Your task to perform on an android device: Open Wikipedia Image 0: 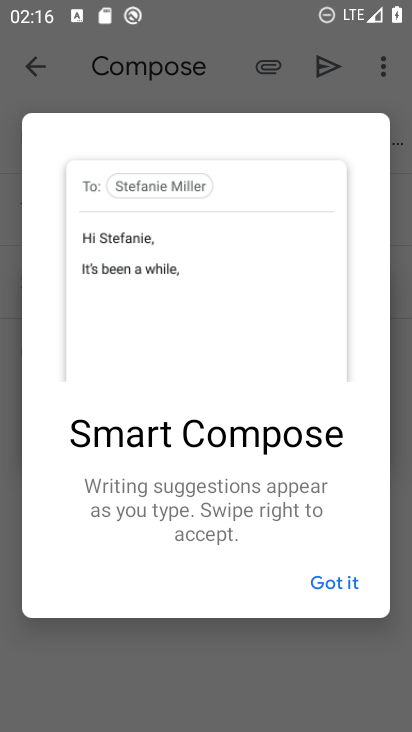
Step 0: press home button
Your task to perform on an android device: Open Wikipedia Image 1: 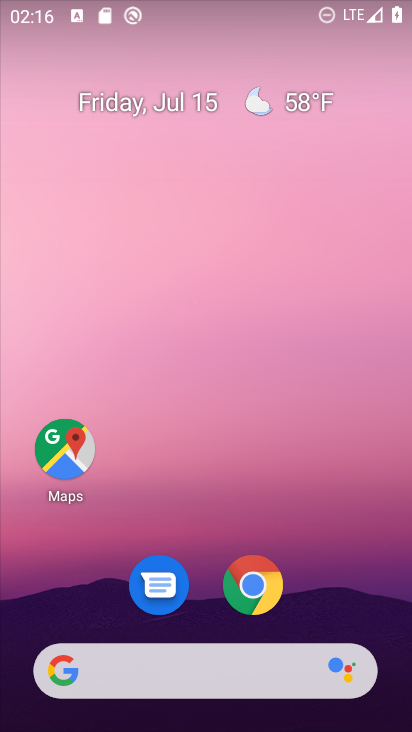
Step 1: click (251, 582)
Your task to perform on an android device: Open Wikipedia Image 2: 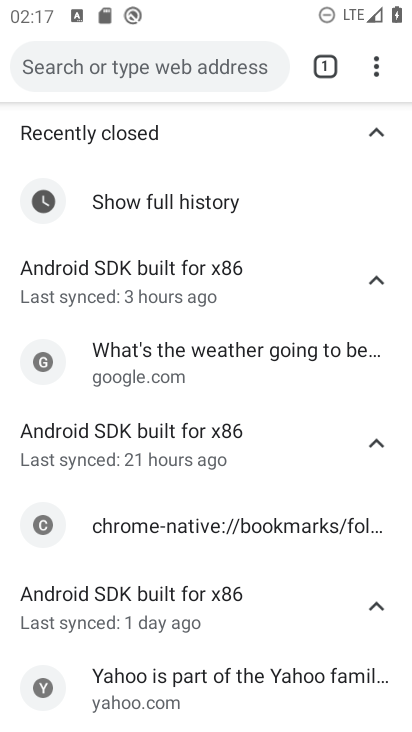
Step 2: click (376, 73)
Your task to perform on an android device: Open Wikipedia Image 3: 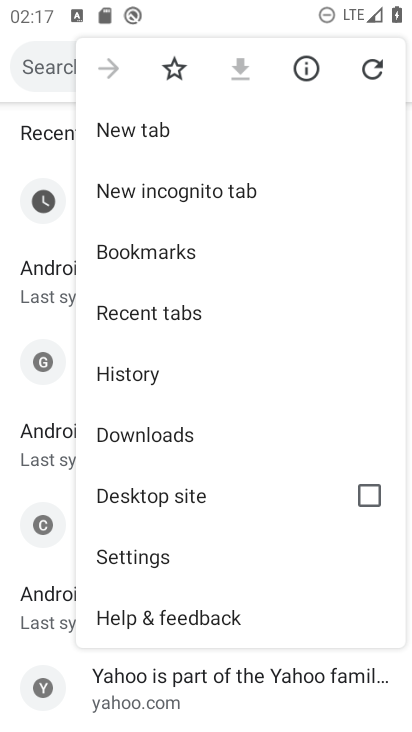
Step 3: click (316, 117)
Your task to perform on an android device: Open Wikipedia Image 4: 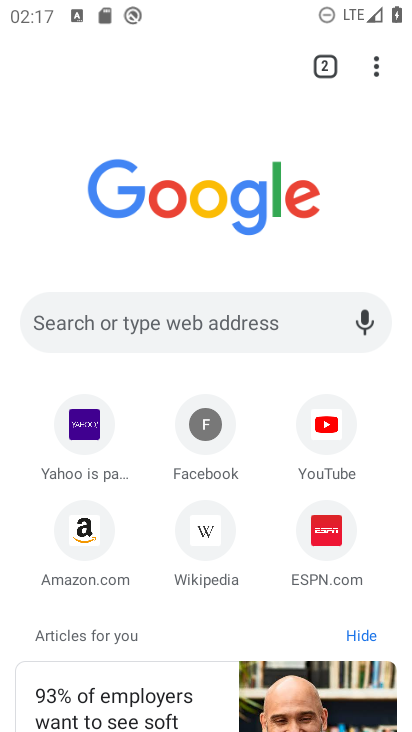
Step 4: click (206, 530)
Your task to perform on an android device: Open Wikipedia Image 5: 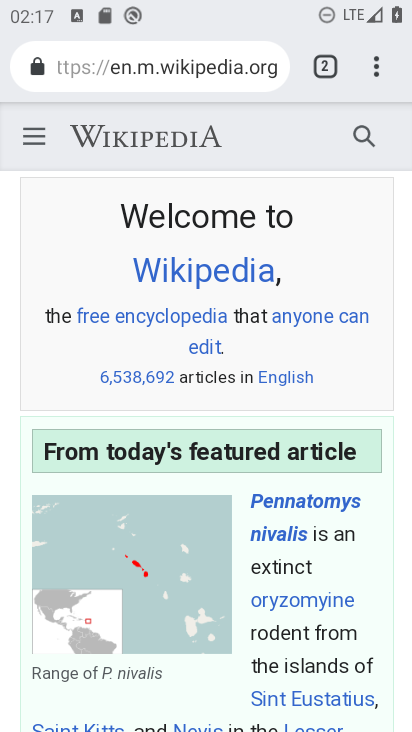
Step 5: click (206, 530)
Your task to perform on an android device: Open Wikipedia Image 6: 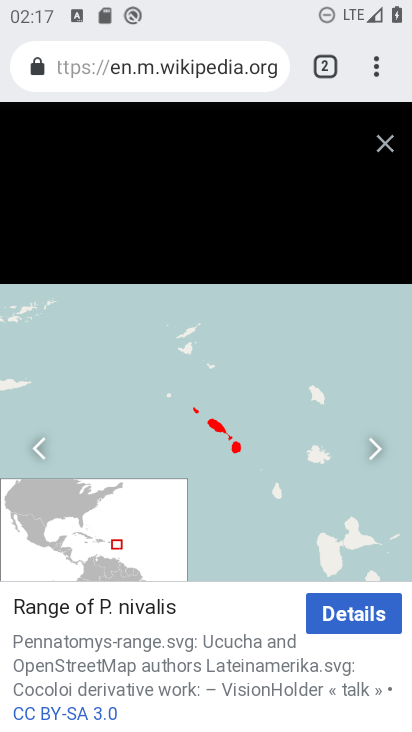
Step 6: click (391, 142)
Your task to perform on an android device: Open Wikipedia Image 7: 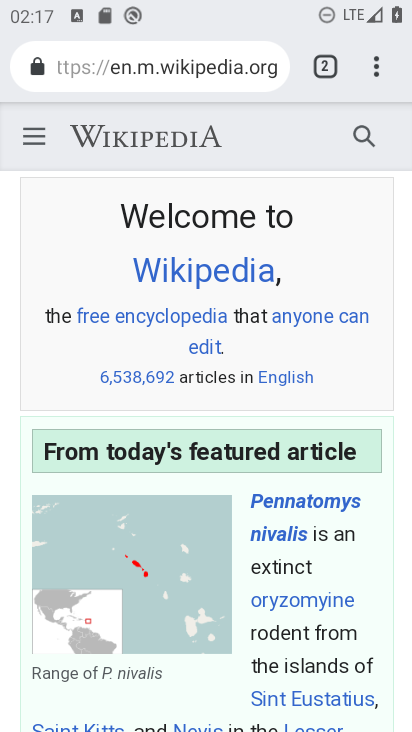
Step 7: task complete